Your task to perform on an android device: open app "PlayWell" Image 0: 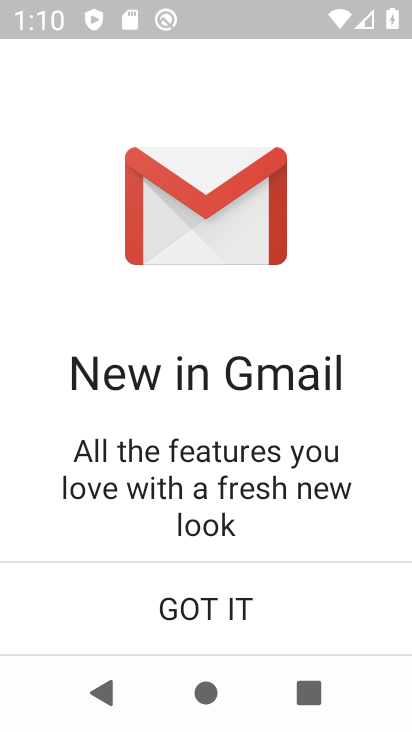
Step 0: press home button
Your task to perform on an android device: open app "PlayWell" Image 1: 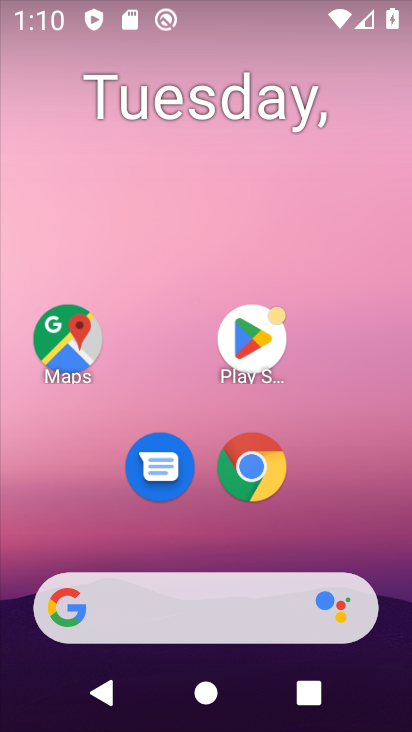
Step 1: click (71, 344)
Your task to perform on an android device: open app "PlayWell" Image 2: 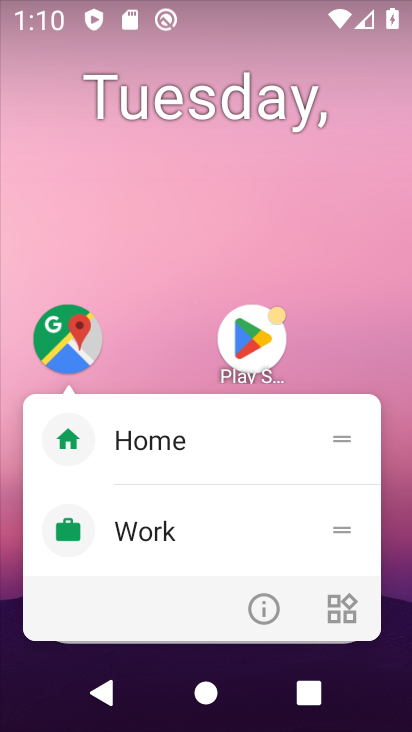
Step 2: click (255, 338)
Your task to perform on an android device: open app "PlayWell" Image 3: 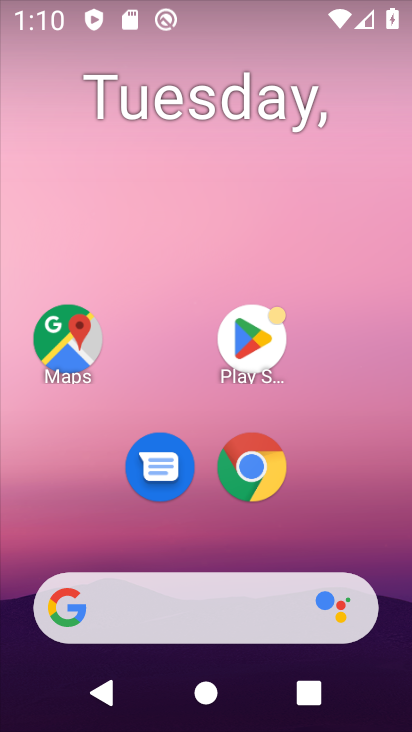
Step 3: click (255, 337)
Your task to perform on an android device: open app "PlayWell" Image 4: 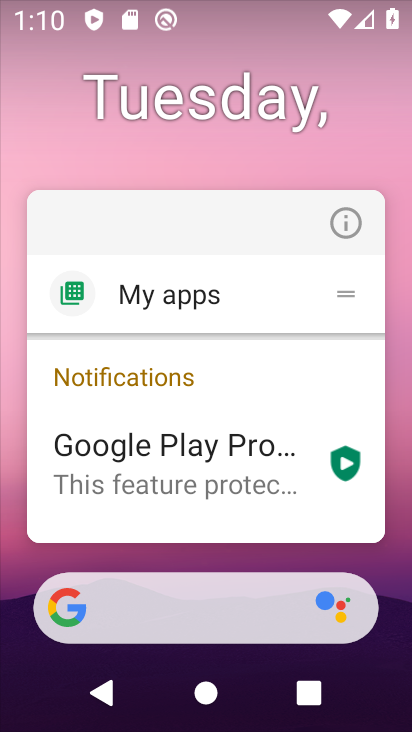
Step 4: click (337, 150)
Your task to perform on an android device: open app "PlayWell" Image 5: 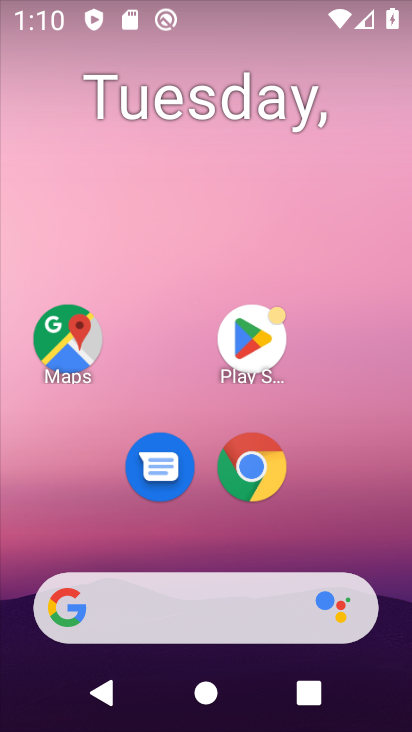
Step 5: click (247, 337)
Your task to perform on an android device: open app "PlayWell" Image 6: 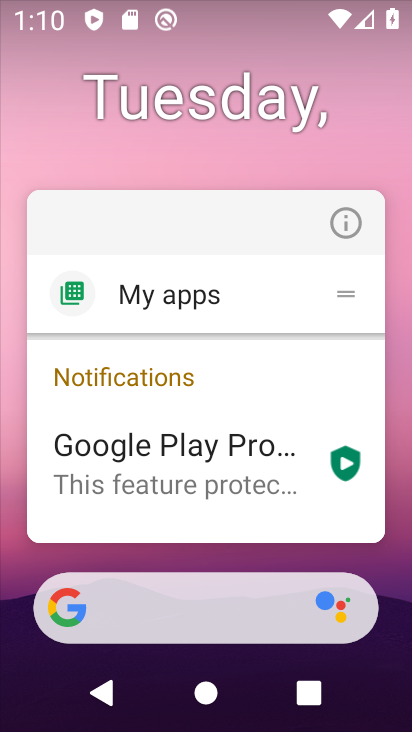
Step 6: click (337, 143)
Your task to perform on an android device: open app "PlayWell" Image 7: 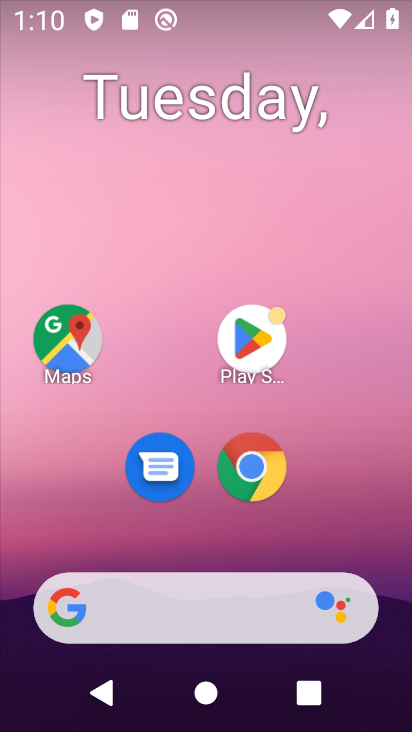
Step 7: click (258, 347)
Your task to perform on an android device: open app "PlayWell" Image 8: 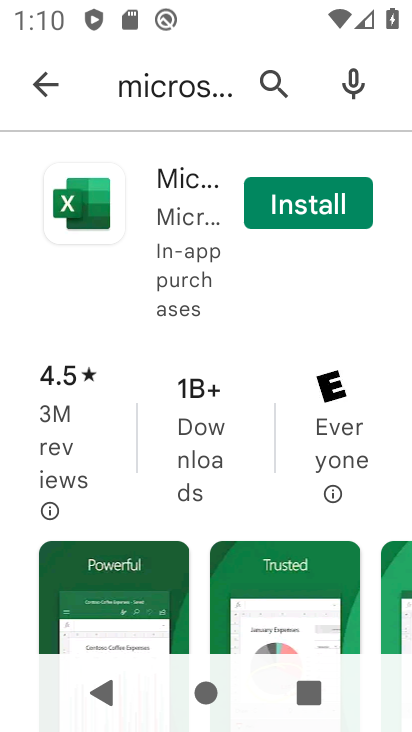
Step 8: click (270, 81)
Your task to perform on an android device: open app "PlayWell" Image 9: 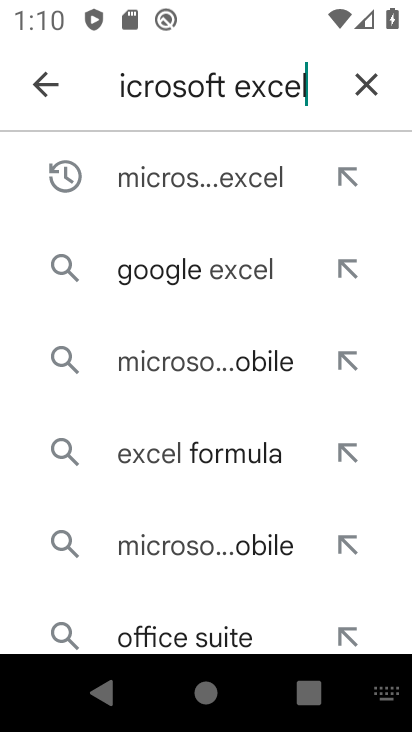
Step 9: click (365, 78)
Your task to perform on an android device: open app "PlayWell" Image 10: 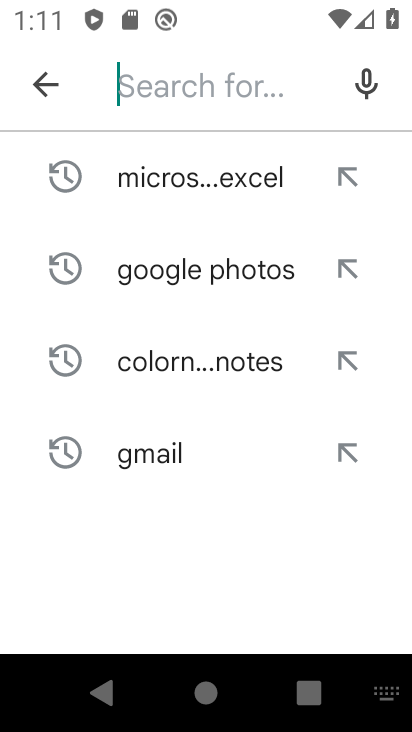
Step 10: type "PlayWell"
Your task to perform on an android device: open app "PlayWell" Image 11: 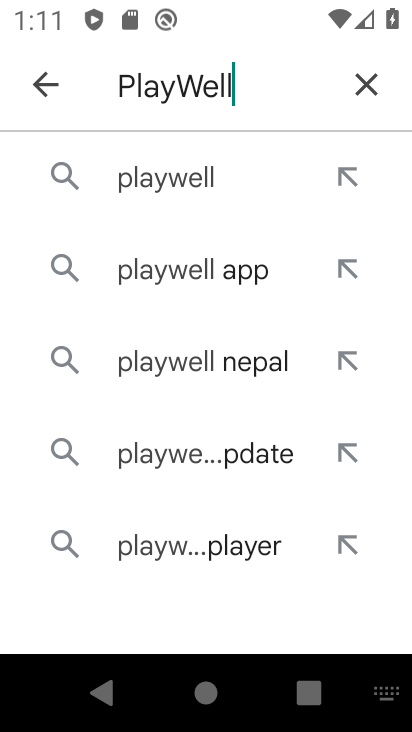
Step 11: click (198, 173)
Your task to perform on an android device: open app "PlayWell" Image 12: 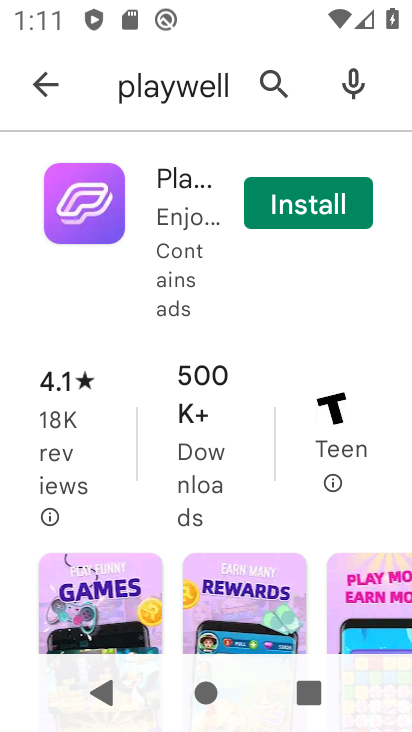
Step 12: task complete